Your task to perform on an android device: Search for Italian restaurants on Maps Image 0: 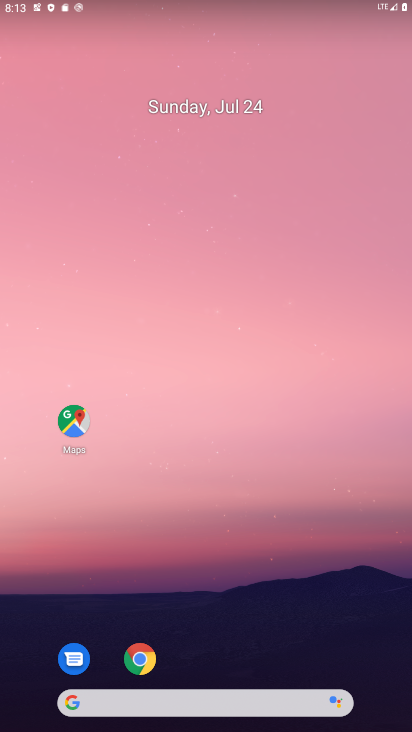
Step 0: drag from (210, 721) to (247, 279)
Your task to perform on an android device: Search for Italian restaurants on Maps Image 1: 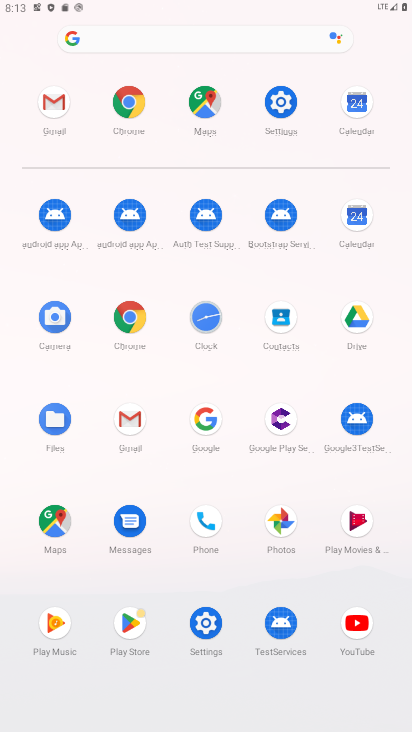
Step 1: click (59, 518)
Your task to perform on an android device: Search for Italian restaurants on Maps Image 2: 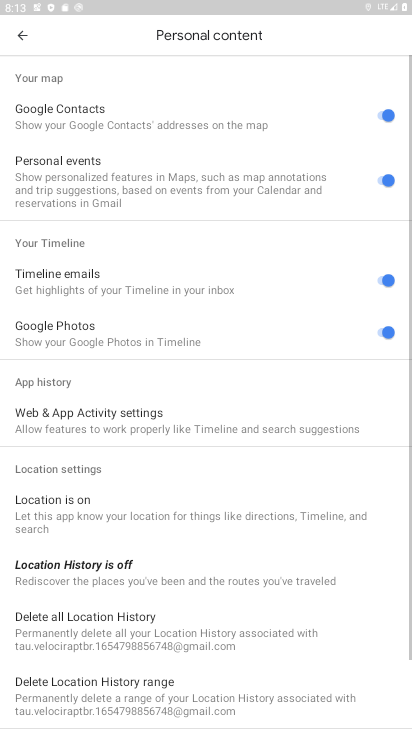
Step 2: click (21, 35)
Your task to perform on an android device: Search for Italian restaurants on Maps Image 3: 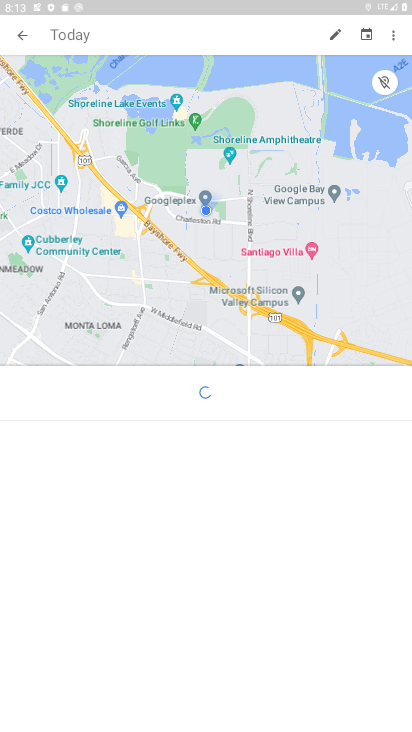
Step 3: click (23, 34)
Your task to perform on an android device: Search for Italian restaurants on Maps Image 4: 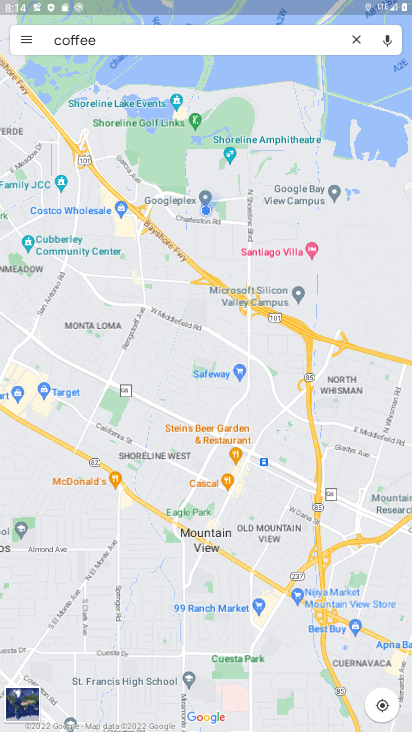
Step 4: click (351, 36)
Your task to perform on an android device: Search for Italian restaurants on Maps Image 5: 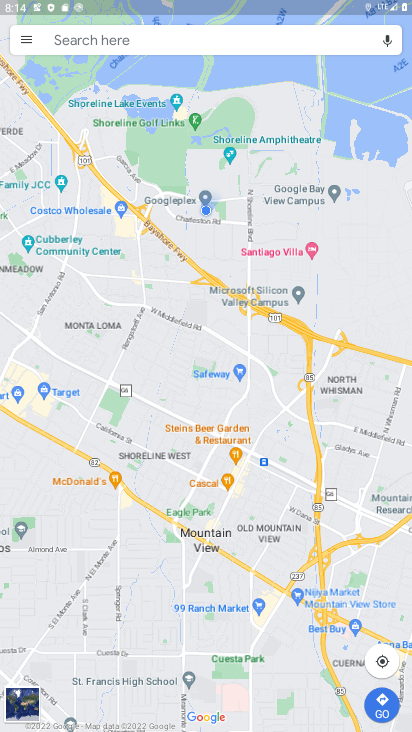
Step 5: click (173, 37)
Your task to perform on an android device: Search for Italian restaurants on Maps Image 6: 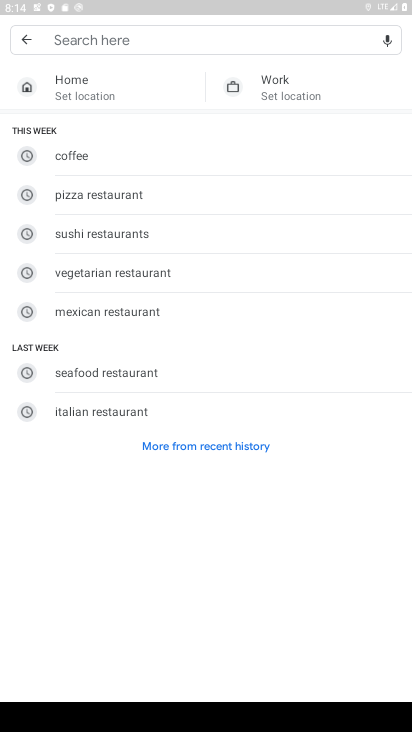
Step 6: type "italian restaurants"
Your task to perform on an android device: Search for Italian restaurants on Maps Image 7: 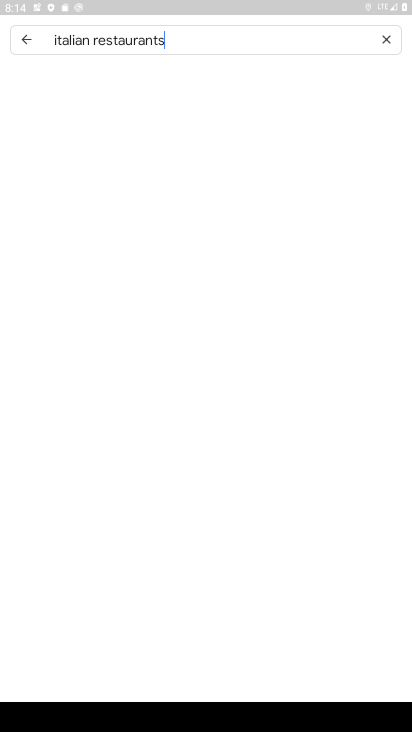
Step 7: type ""
Your task to perform on an android device: Search for Italian restaurants on Maps Image 8: 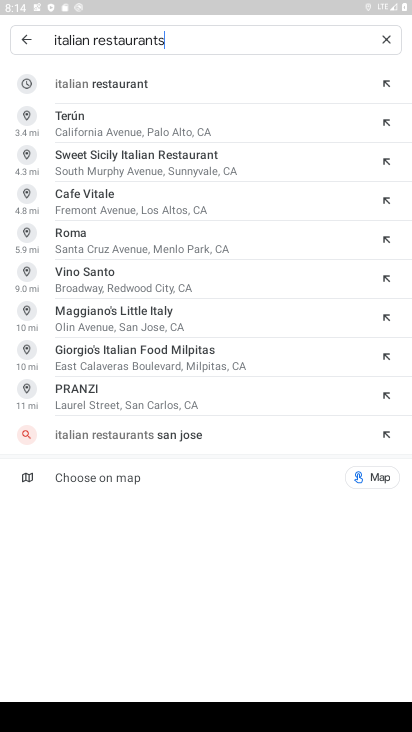
Step 8: click (106, 79)
Your task to perform on an android device: Search for Italian restaurants on Maps Image 9: 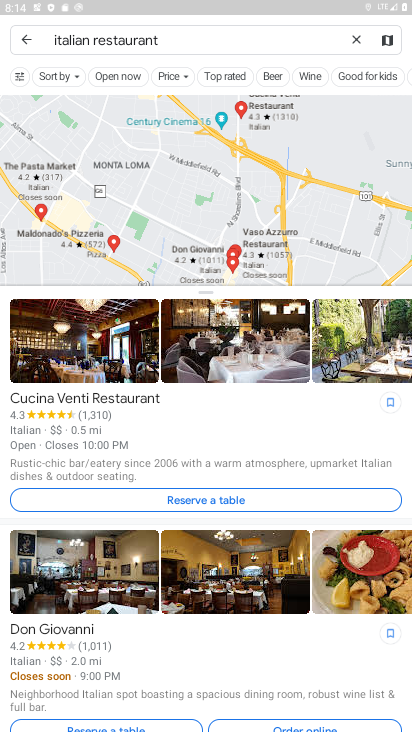
Step 9: task complete